Your task to perform on an android device: check out phone information Image 0: 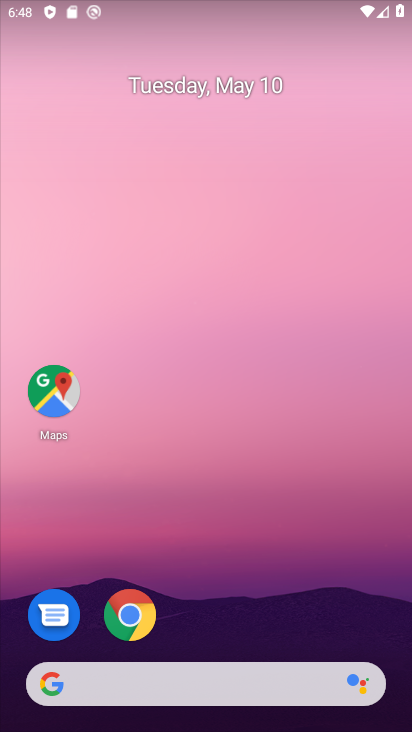
Step 0: drag from (267, 547) to (175, 95)
Your task to perform on an android device: check out phone information Image 1: 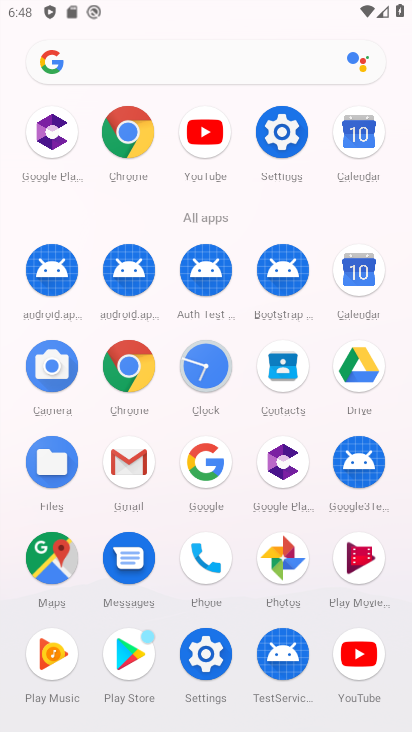
Step 1: click (210, 648)
Your task to perform on an android device: check out phone information Image 2: 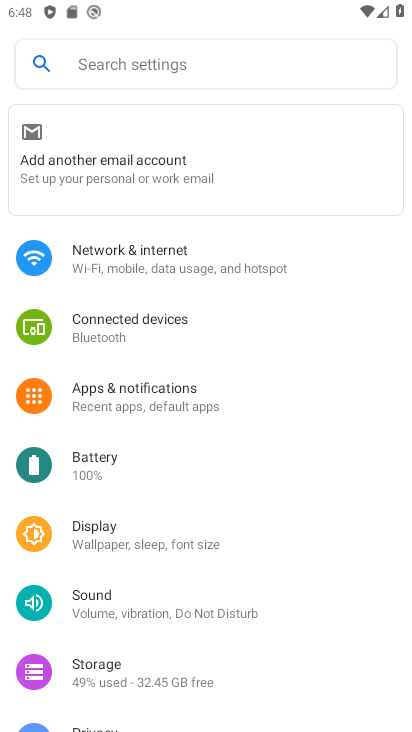
Step 2: drag from (196, 547) to (177, 308)
Your task to perform on an android device: check out phone information Image 3: 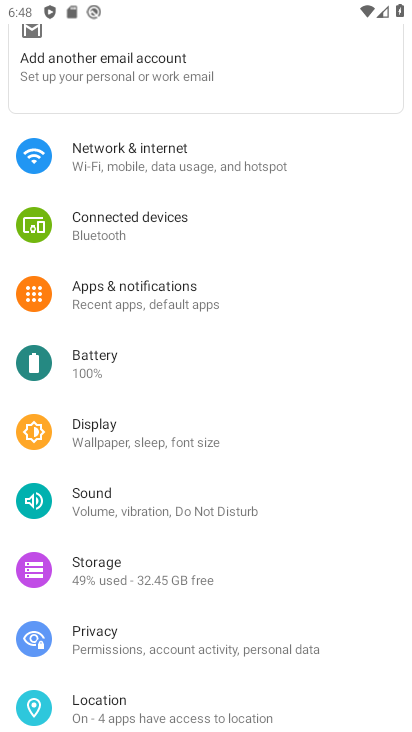
Step 3: drag from (186, 622) to (121, 142)
Your task to perform on an android device: check out phone information Image 4: 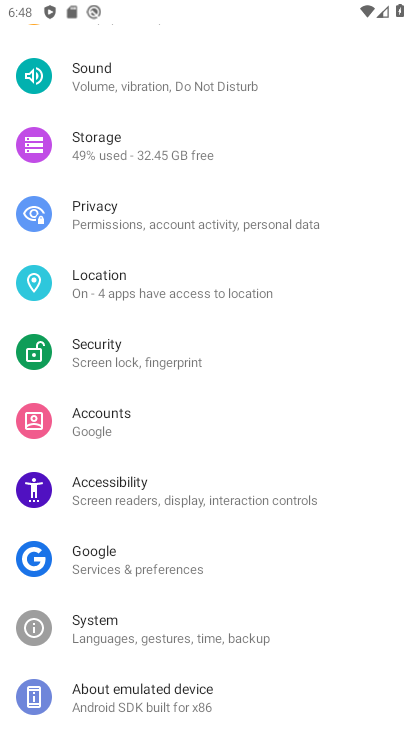
Step 4: click (133, 691)
Your task to perform on an android device: check out phone information Image 5: 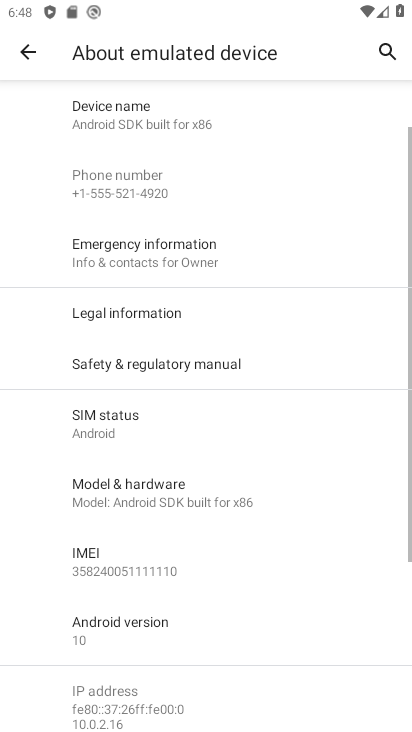
Step 5: task complete